Your task to perform on an android device: Open Google Maps and go to "Timeline" Image 0: 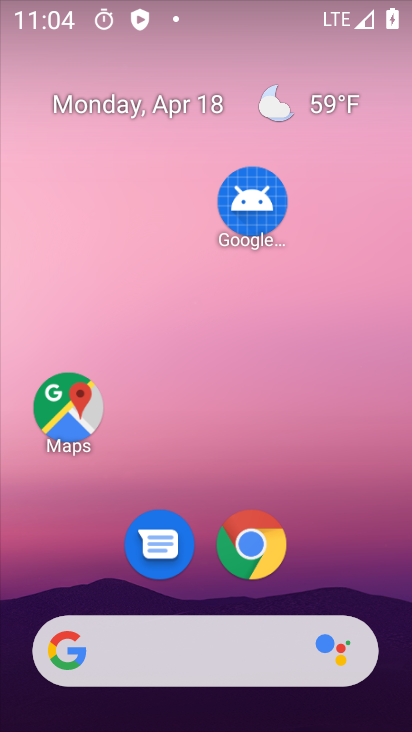
Step 0: drag from (332, 607) to (329, 204)
Your task to perform on an android device: Open Google Maps and go to "Timeline" Image 1: 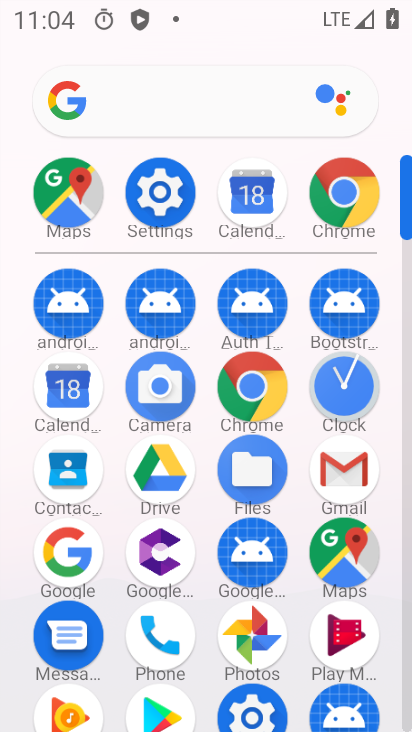
Step 1: click (335, 533)
Your task to perform on an android device: Open Google Maps and go to "Timeline" Image 2: 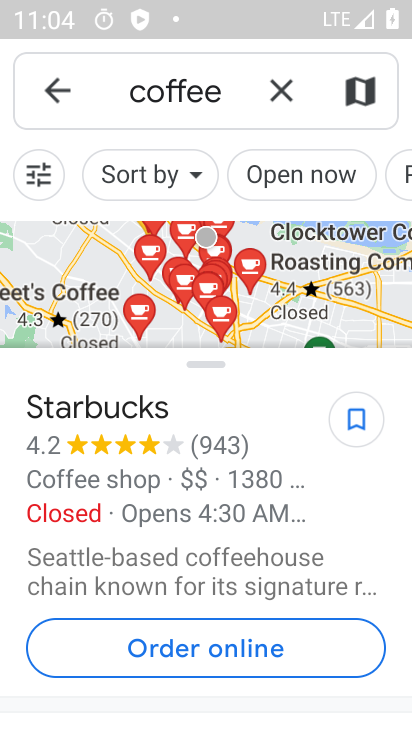
Step 2: click (59, 76)
Your task to perform on an android device: Open Google Maps and go to "Timeline" Image 3: 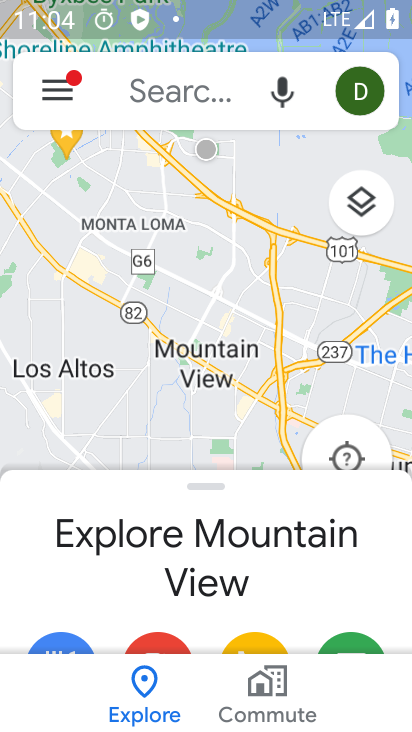
Step 3: click (59, 76)
Your task to perform on an android device: Open Google Maps and go to "Timeline" Image 4: 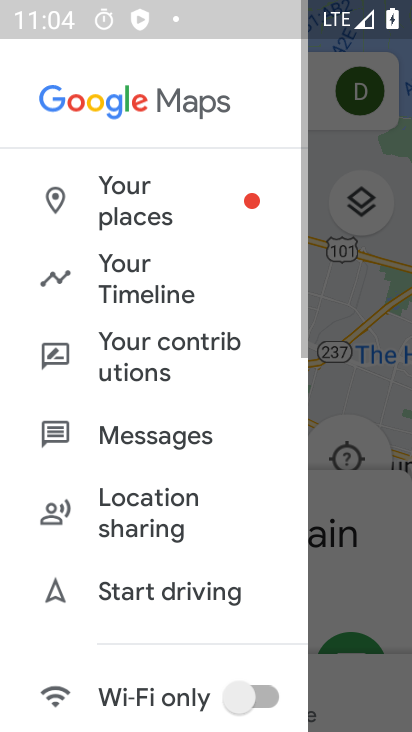
Step 4: click (117, 266)
Your task to perform on an android device: Open Google Maps and go to "Timeline" Image 5: 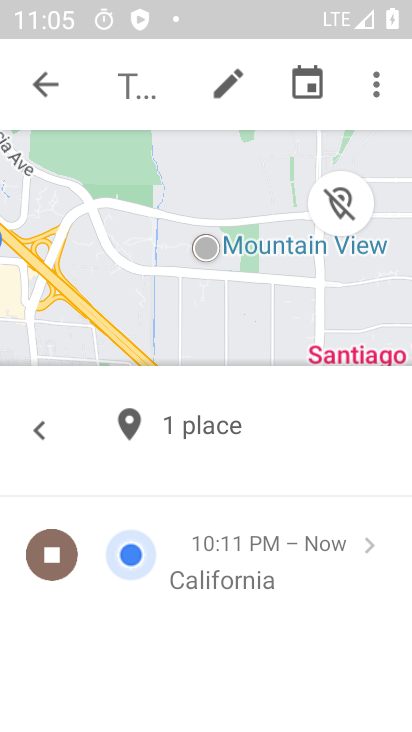
Step 5: task complete